Your task to perform on an android device: turn off javascript in the chrome app Image 0: 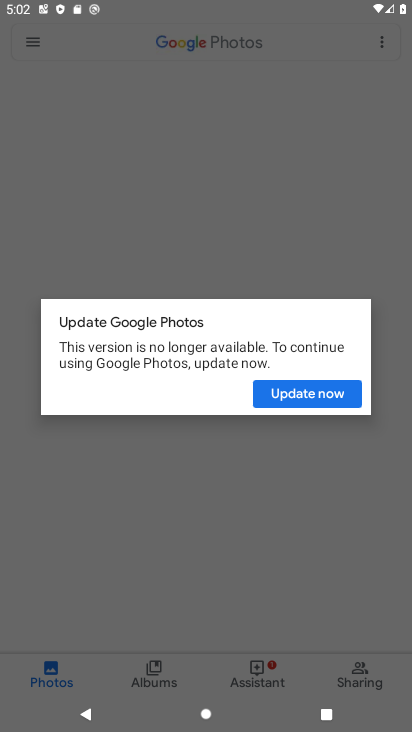
Step 0: press home button
Your task to perform on an android device: turn off javascript in the chrome app Image 1: 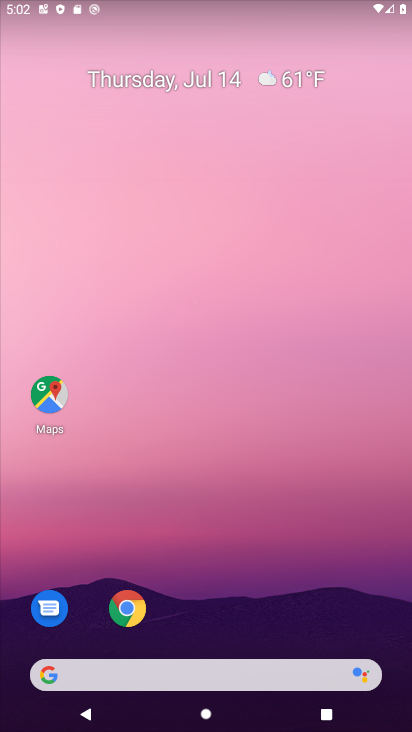
Step 1: drag from (330, 509) to (239, 67)
Your task to perform on an android device: turn off javascript in the chrome app Image 2: 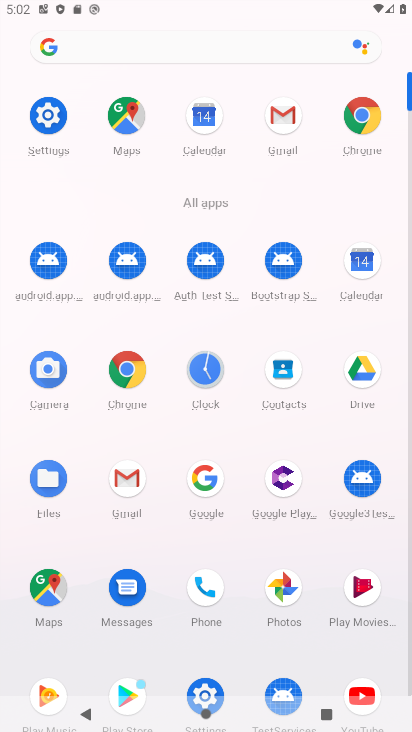
Step 2: click (366, 109)
Your task to perform on an android device: turn off javascript in the chrome app Image 3: 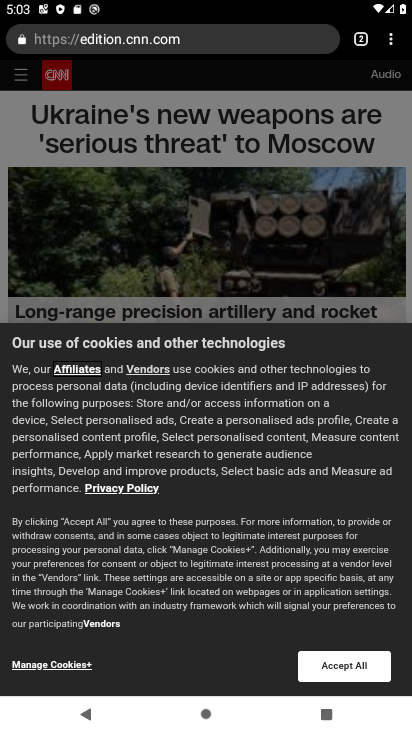
Step 3: drag from (393, 37) to (255, 439)
Your task to perform on an android device: turn off javascript in the chrome app Image 4: 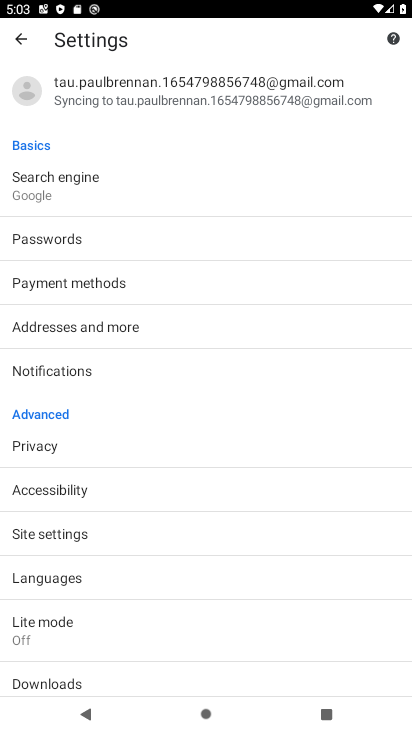
Step 4: click (54, 536)
Your task to perform on an android device: turn off javascript in the chrome app Image 5: 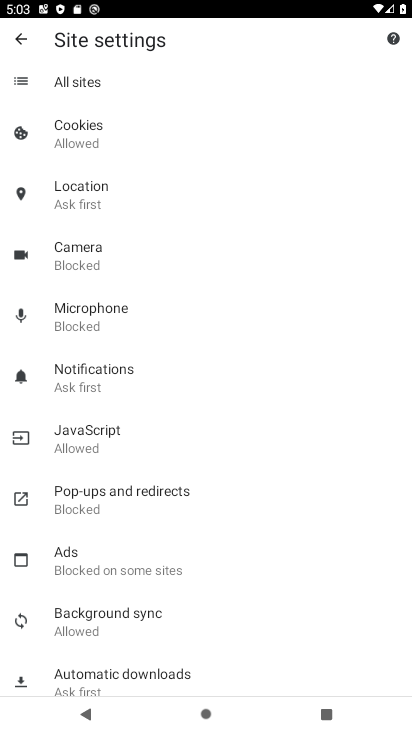
Step 5: click (89, 428)
Your task to perform on an android device: turn off javascript in the chrome app Image 6: 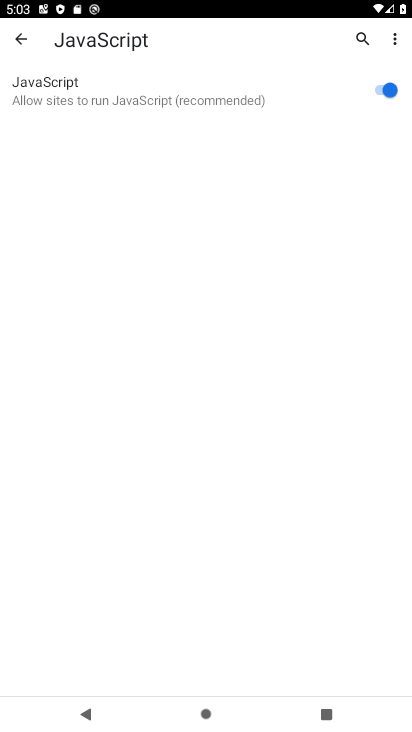
Step 6: click (384, 88)
Your task to perform on an android device: turn off javascript in the chrome app Image 7: 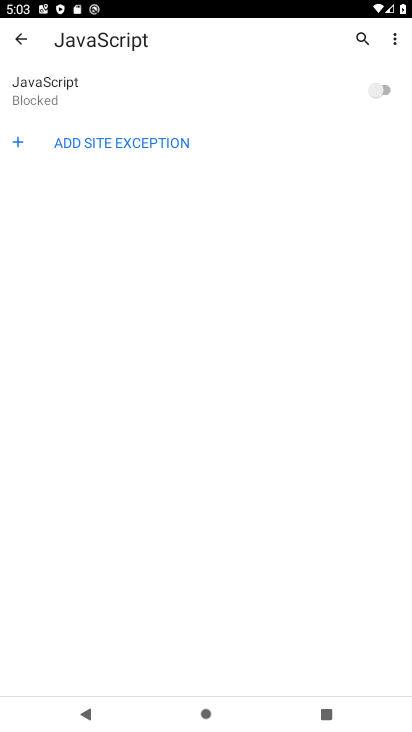
Step 7: task complete